Your task to perform on an android device: turn on bluetooth scan Image 0: 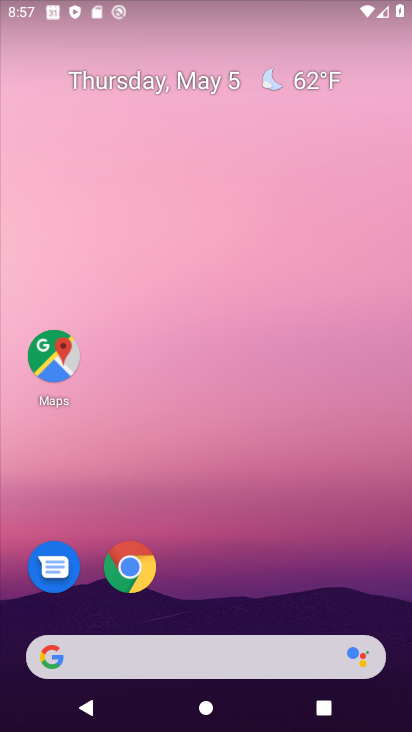
Step 0: drag from (217, 720) to (217, 207)
Your task to perform on an android device: turn on bluetooth scan Image 1: 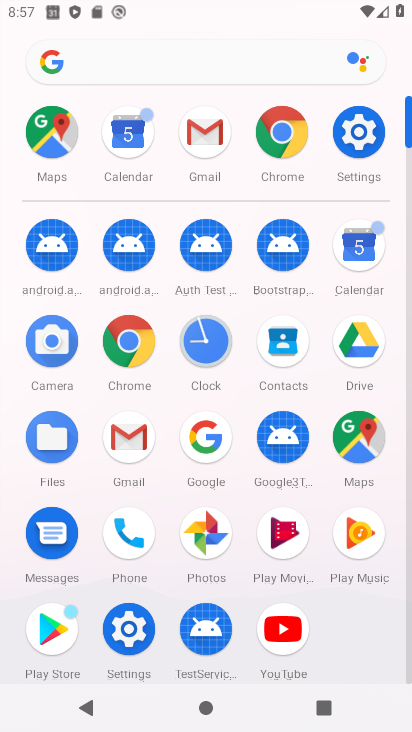
Step 1: click (353, 126)
Your task to perform on an android device: turn on bluetooth scan Image 2: 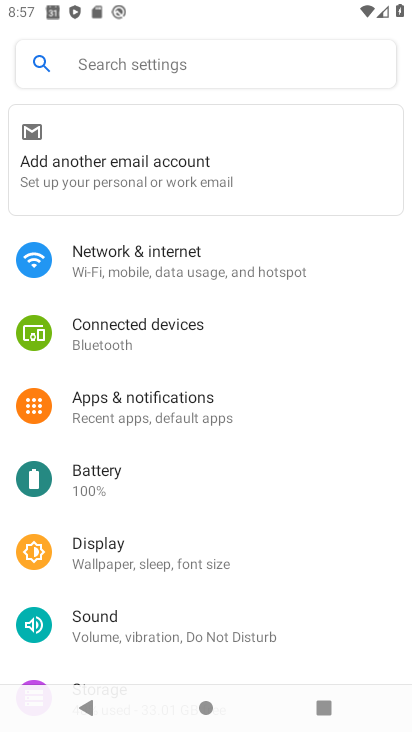
Step 2: drag from (91, 646) to (93, 601)
Your task to perform on an android device: turn on bluetooth scan Image 3: 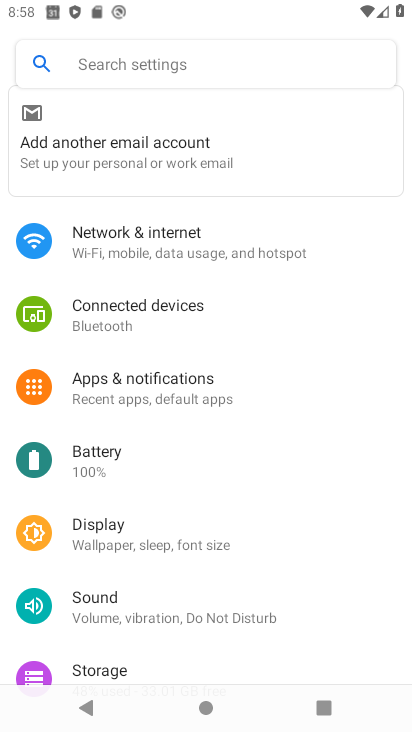
Step 3: drag from (113, 645) to (113, 487)
Your task to perform on an android device: turn on bluetooth scan Image 4: 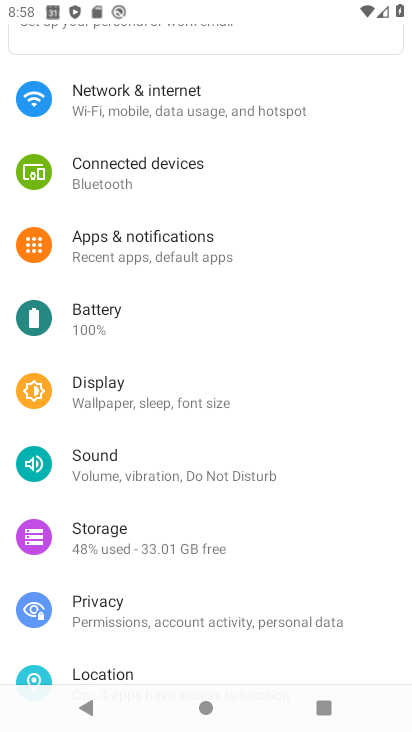
Step 4: click (109, 655)
Your task to perform on an android device: turn on bluetooth scan Image 5: 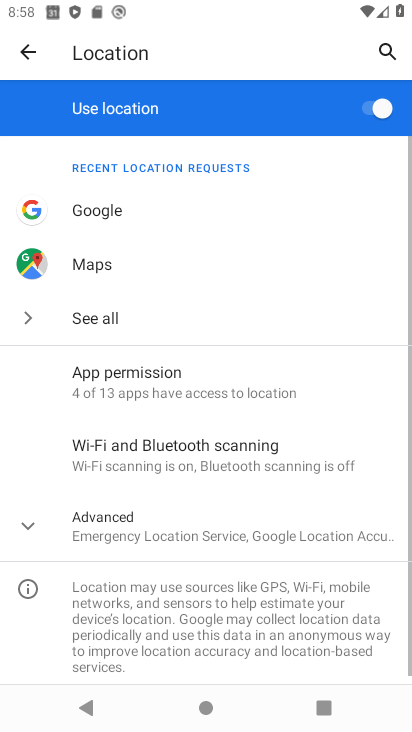
Step 5: click (148, 461)
Your task to perform on an android device: turn on bluetooth scan Image 6: 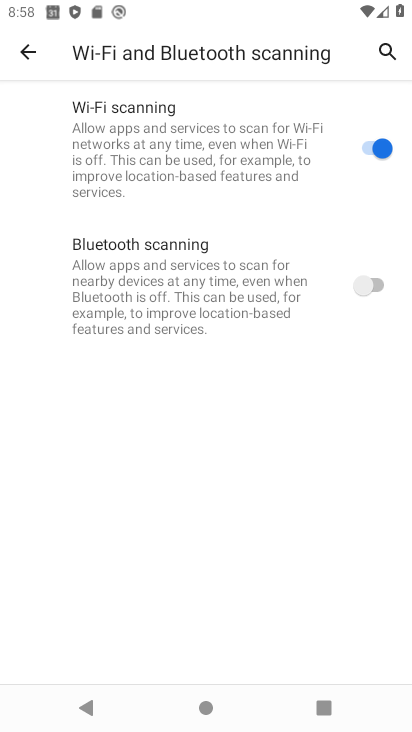
Step 6: click (378, 286)
Your task to perform on an android device: turn on bluetooth scan Image 7: 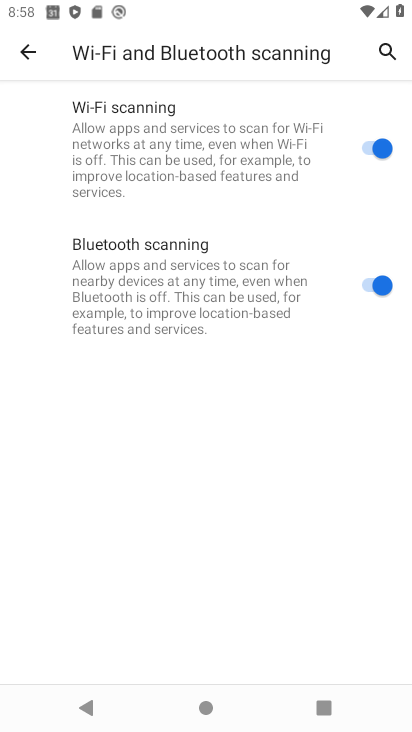
Step 7: task complete